Your task to perform on an android device: Go to accessibility settings Image 0: 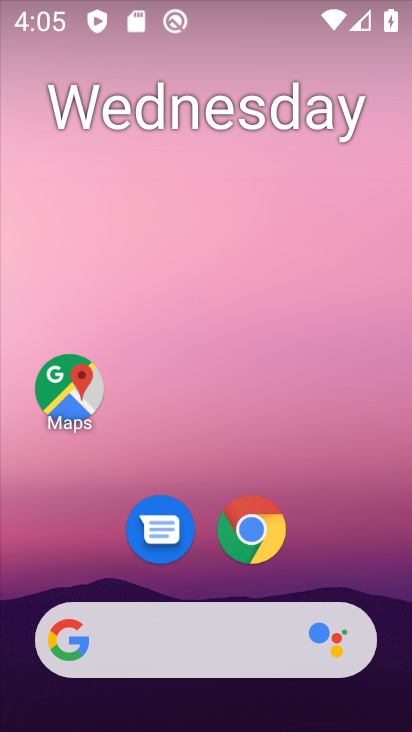
Step 0: drag from (190, 551) to (242, 88)
Your task to perform on an android device: Go to accessibility settings Image 1: 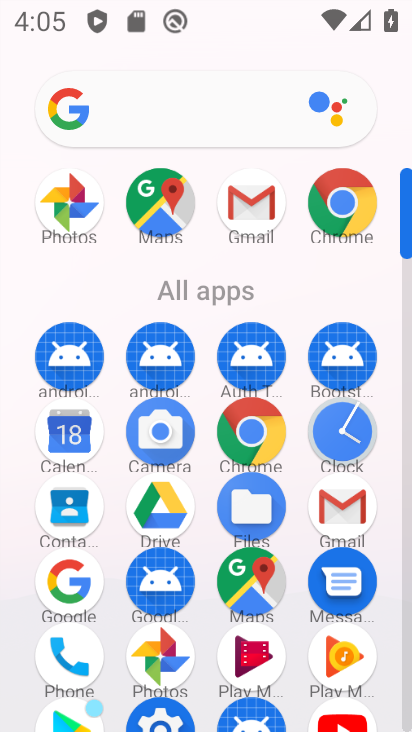
Step 1: click (158, 710)
Your task to perform on an android device: Go to accessibility settings Image 2: 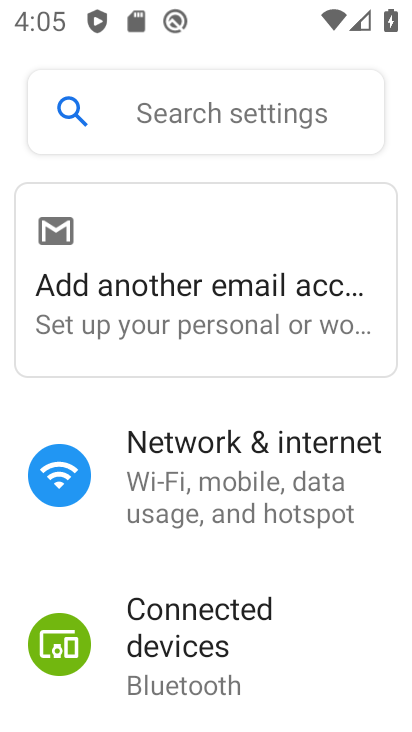
Step 2: drag from (180, 663) to (317, 13)
Your task to perform on an android device: Go to accessibility settings Image 3: 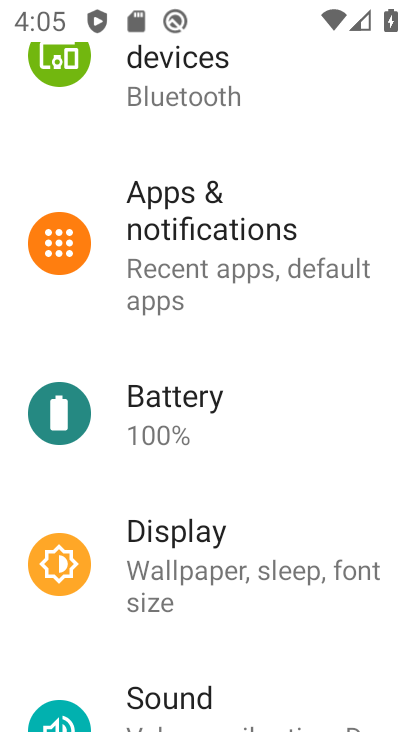
Step 3: drag from (260, 549) to (286, 114)
Your task to perform on an android device: Go to accessibility settings Image 4: 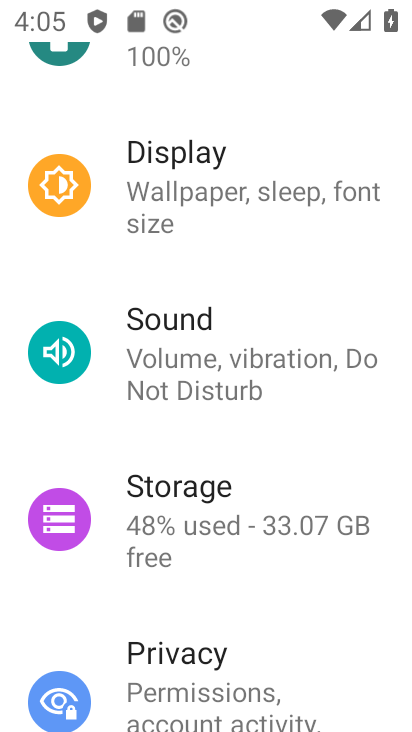
Step 4: drag from (187, 677) to (288, 209)
Your task to perform on an android device: Go to accessibility settings Image 5: 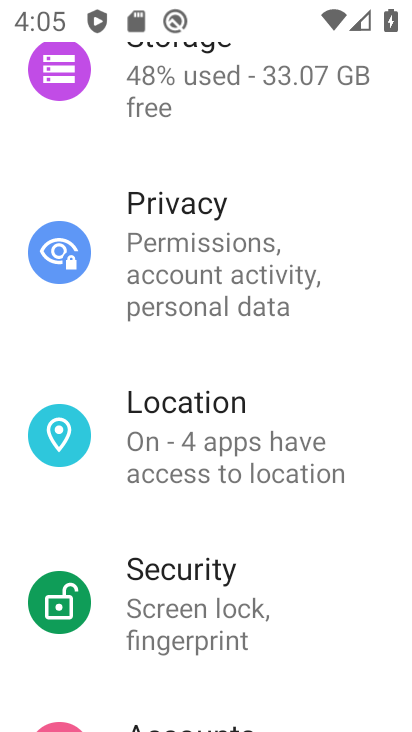
Step 5: drag from (197, 647) to (261, 222)
Your task to perform on an android device: Go to accessibility settings Image 6: 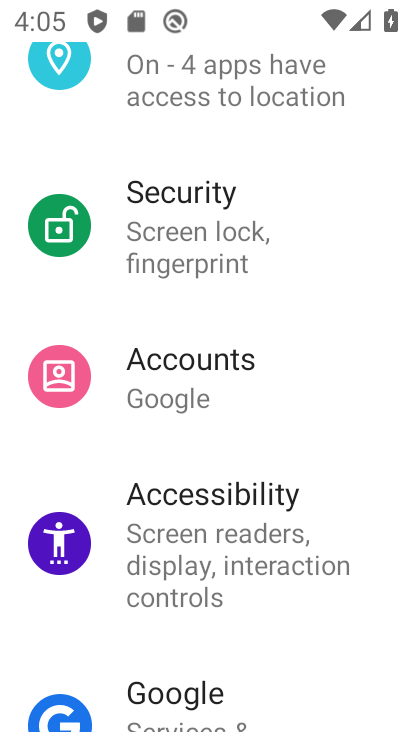
Step 6: click (197, 532)
Your task to perform on an android device: Go to accessibility settings Image 7: 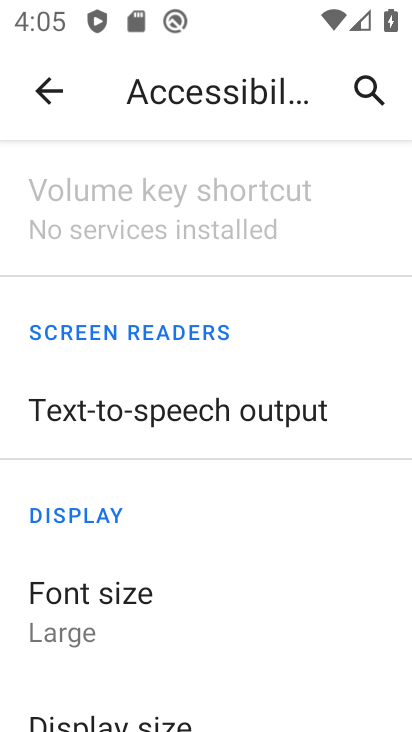
Step 7: task complete